Your task to perform on an android device: What's the weather going to be tomorrow? Image 0: 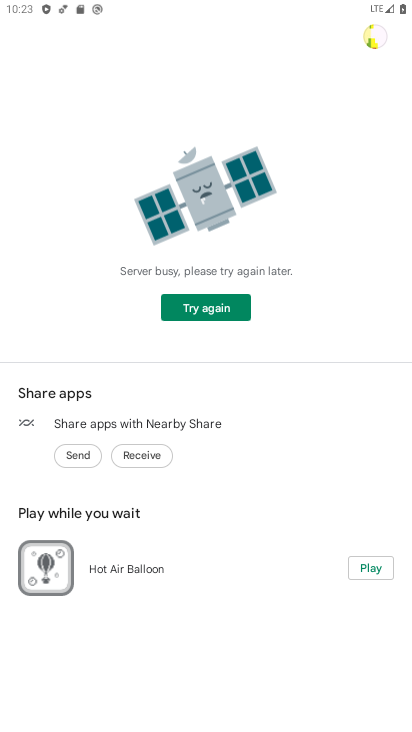
Step 0: press home button
Your task to perform on an android device: What's the weather going to be tomorrow? Image 1: 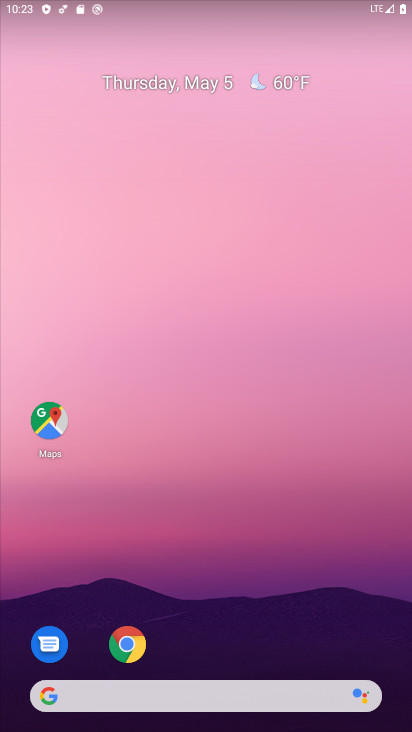
Step 1: drag from (370, 564) to (325, 128)
Your task to perform on an android device: What's the weather going to be tomorrow? Image 2: 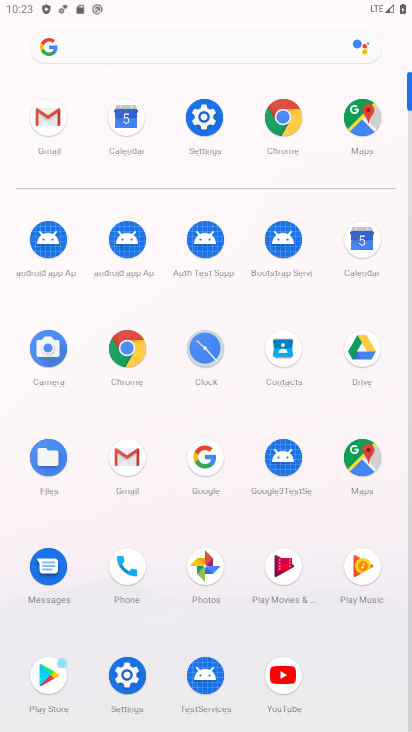
Step 2: click (135, 355)
Your task to perform on an android device: What's the weather going to be tomorrow? Image 3: 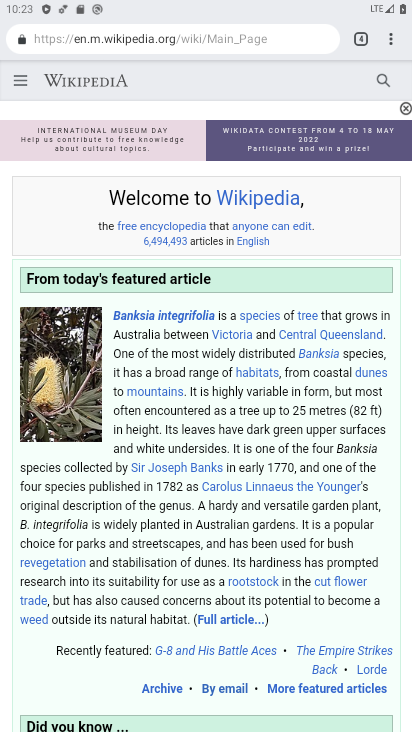
Step 3: click (216, 36)
Your task to perform on an android device: What's the weather going to be tomorrow? Image 4: 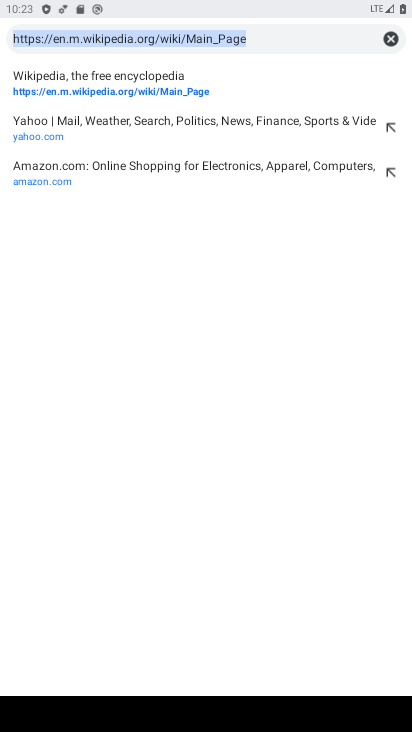
Step 4: click (394, 40)
Your task to perform on an android device: What's the weather going to be tomorrow? Image 5: 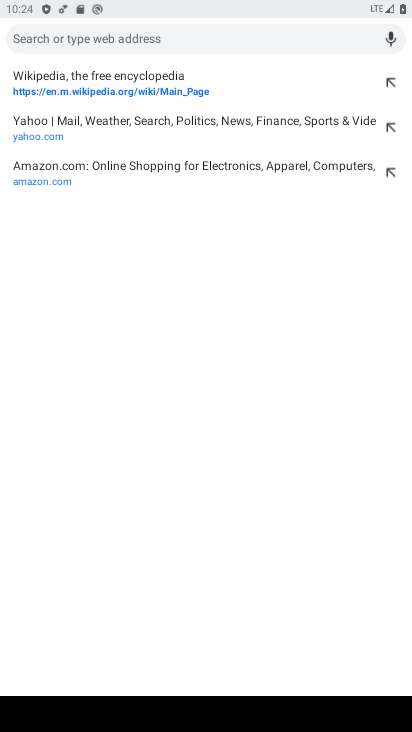
Step 5: type "what's the weather going to be tomorrow"
Your task to perform on an android device: What's the weather going to be tomorrow? Image 6: 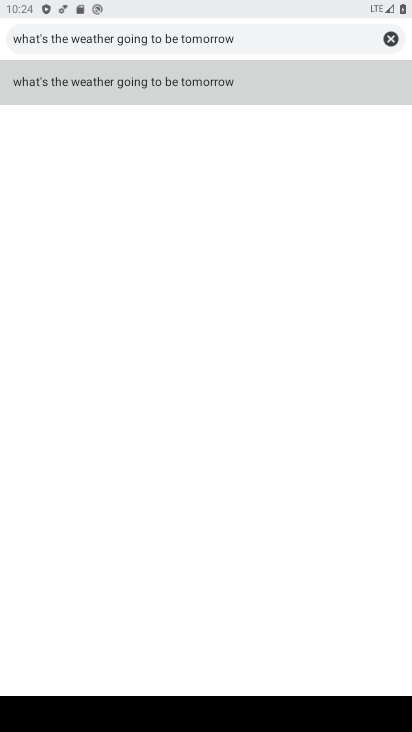
Step 6: click (154, 89)
Your task to perform on an android device: What's the weather going to be tomorrow? Image 7: 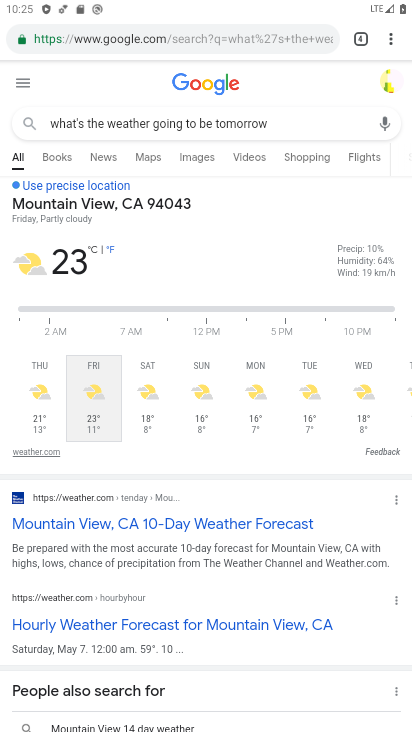
Step 7: task complete